Your task to perform on an android device: turn off airplane mode Image 0: 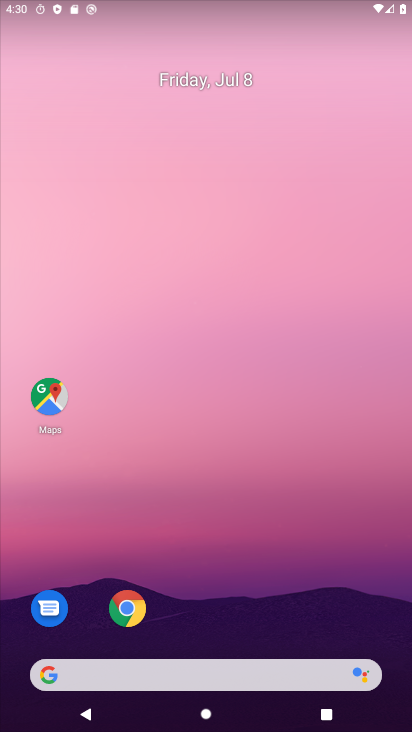
Step 0: drag from (217, 64) to (218, 561)
Your task to perform on an android device: turn off airplane mode Image 1: 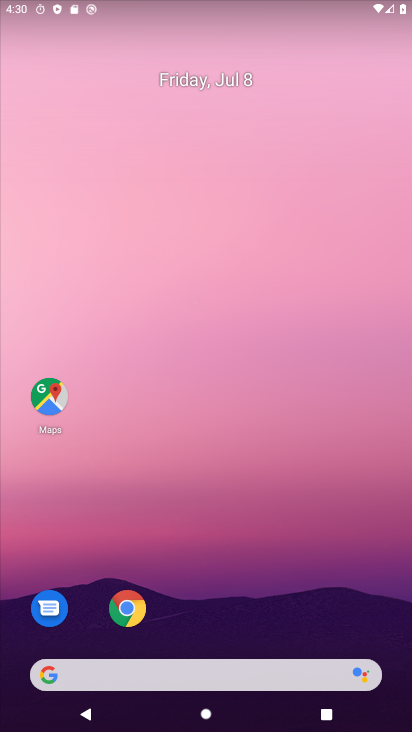
Step 1: task complete